Your task to perform on an android device: empty trash in the gmail app Image 0: 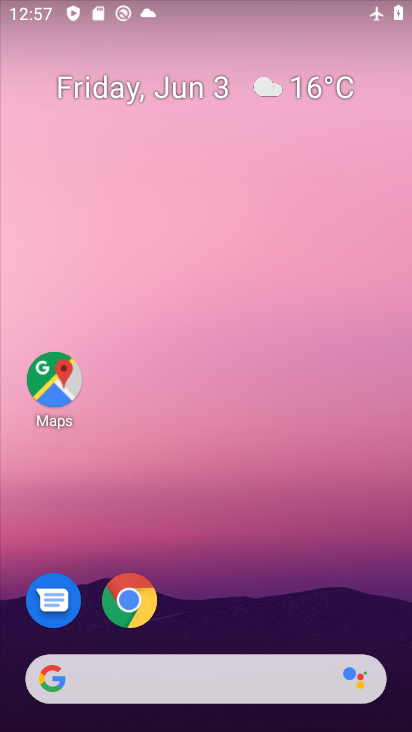
Step 0: drag from (186, 637) to (271, 2)
Your task to perform on an android device: empty trash in the gmail app Image 1: 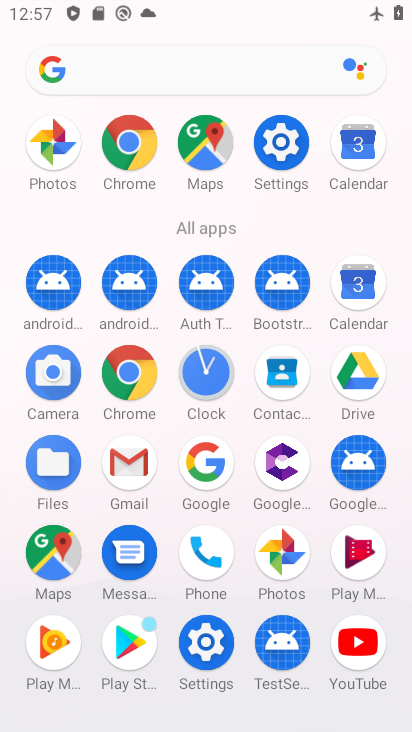
Step 1: click (121, 480)
Your task to perform on an android device: empty trash in the gmail app Image 2: 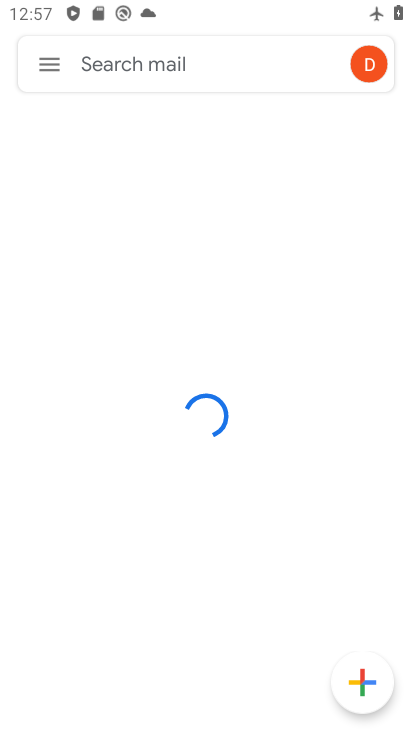
Step 2: click (63, 65)
Your task to perform on an android device: empty trash in the gmail app Image 3: 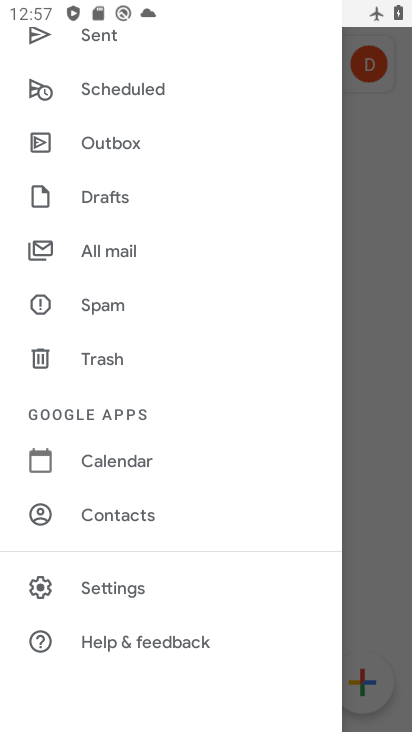
Step 3: click (111, 355)
Your task to perform on an android device: empty trash in the gmail app Image 4: 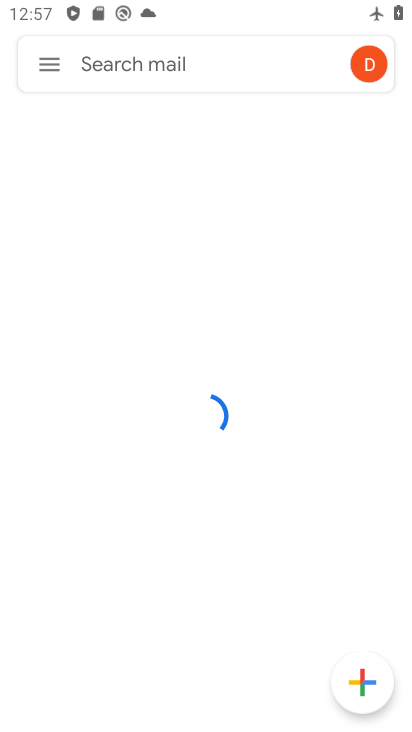
Step 4: task complete